Your task to perform on an android device: Open sound settings Image 0: 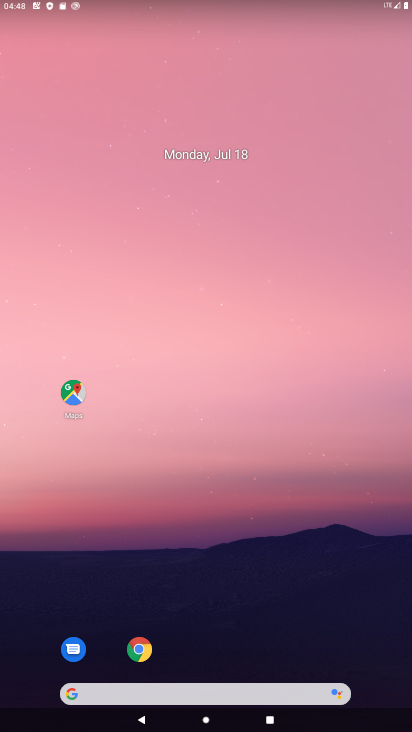
Step 0: press home button
Your task to perform on an android device: Open sound settings Image 1: 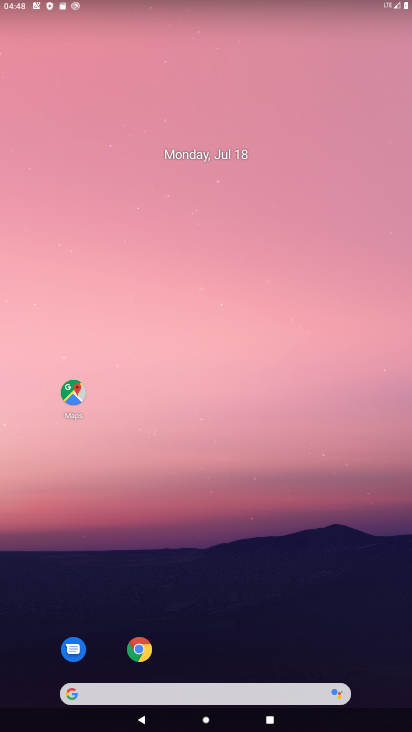
Step 1: drag from (196, 649) to (168, 199)
Your task to perform on an android device: Open sound settings Image 2: 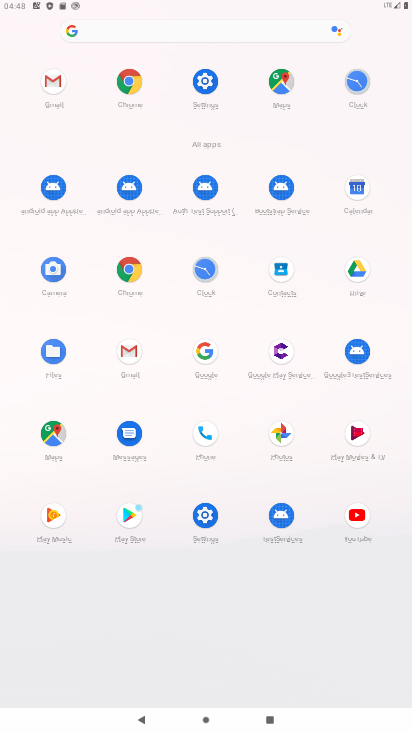
Step 2: click (211, 66)
Your task to perform on an android device: Open sound settings Image 3: 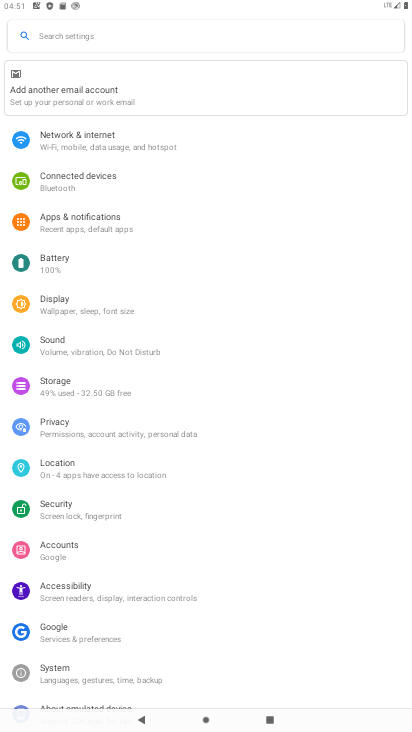
Step 3: task complete